Your task to perform on an android device: Go to accessibility settings Image 0: 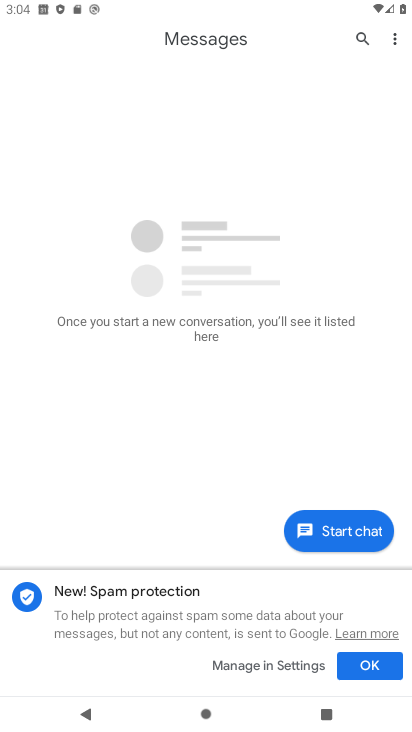
Step 0: press home button
Your task to perform on an android device: Go to accessibility settings Image 1: 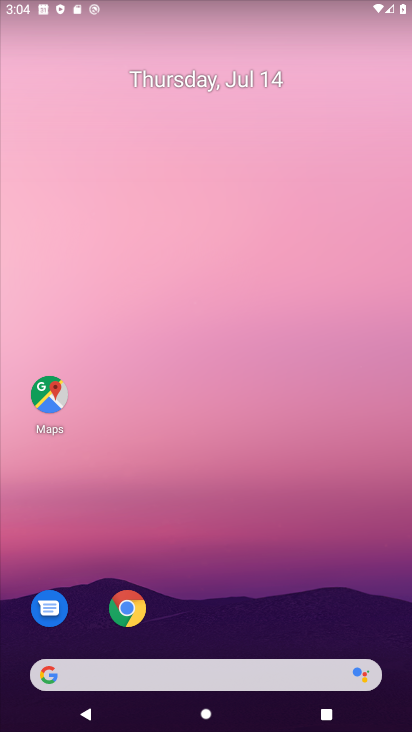
Step 1: drag from (306, 589) to (315, 136)
Your task to perform on an android device: Go to accessibility settings Image 2: 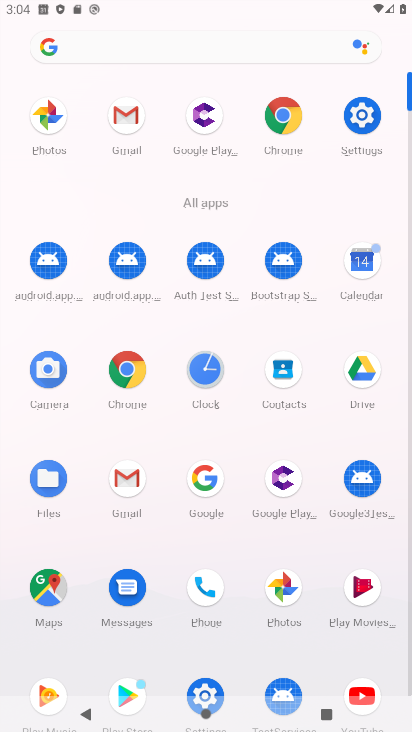
Step 2: click (342, 140)
Your task to perform on an android device: Go to accessibility settings Image 3: 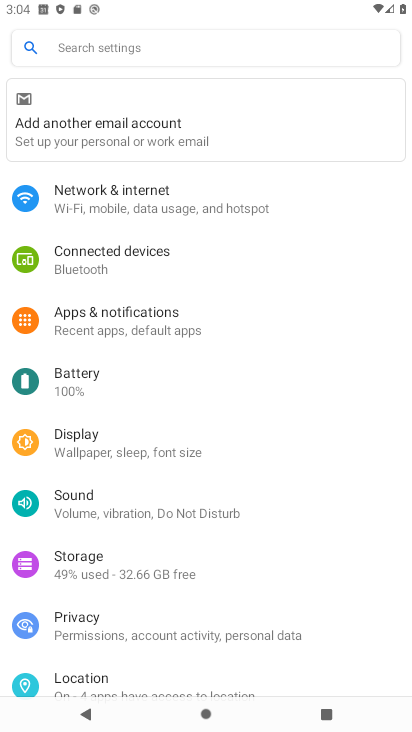
Step 3: drag from (122, 631) to (117, 208)
Your task to perform on an android device: Go to accessibility settings Image 4: 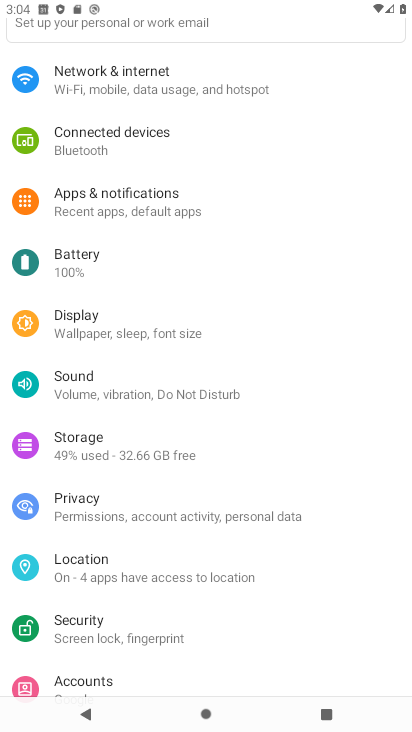
Step 4: drag from (142, 582) to (124, 219)
Your task to perform on an android device: Go to accessibility settings Image 5: 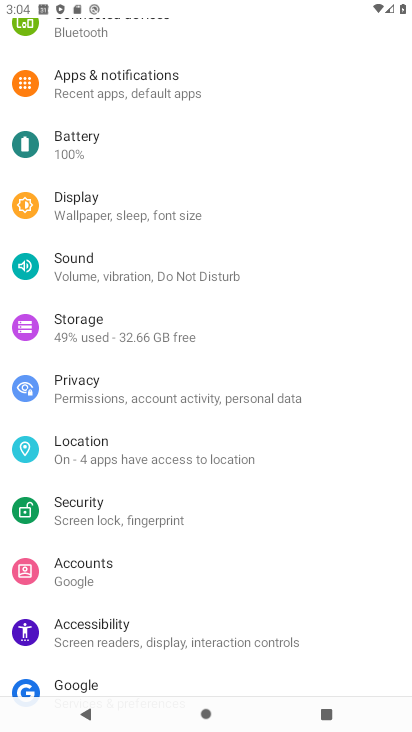
Step 5: click (141, 626)
Your task to perform on an android device: Go to accessibility settings Image 6: 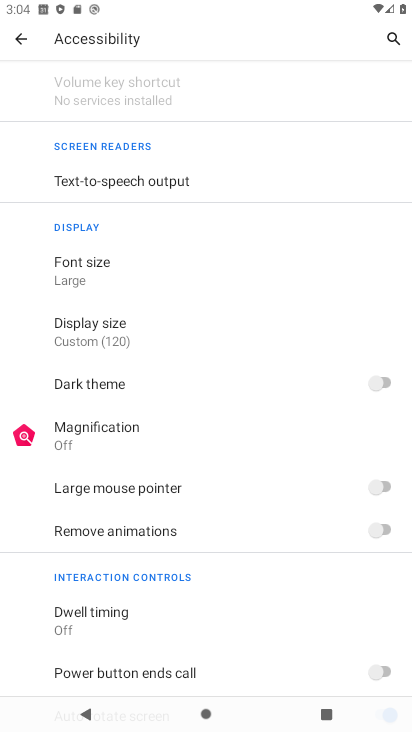
Step 6: task complete